Your task to perform on an android device: all mails in gmail Image 0: 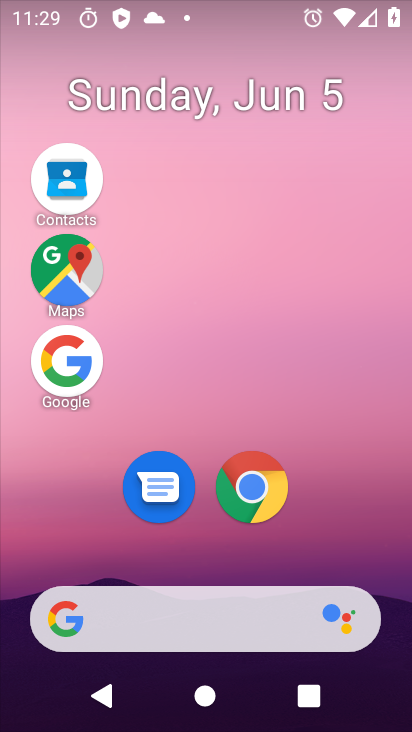
Step 0: drag from (198, 622) to (274, 152)
Your task to perform on an android device: all mails in gmail Image 1: 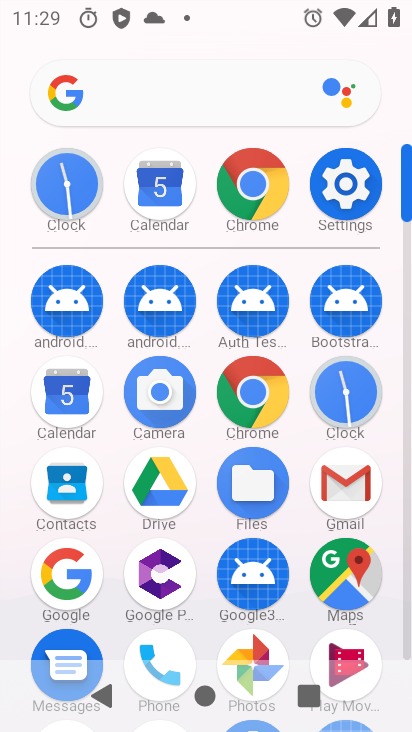
Step 1: click (351, 475)
Your task to perform on an android device: all mails in gmail Image 2: 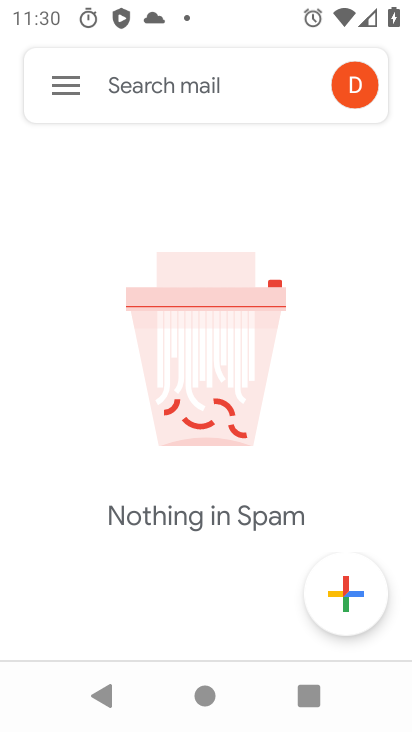
Step 2: click (68, 99)
Your task to perform on an android device: all mails in gmail Image 3: 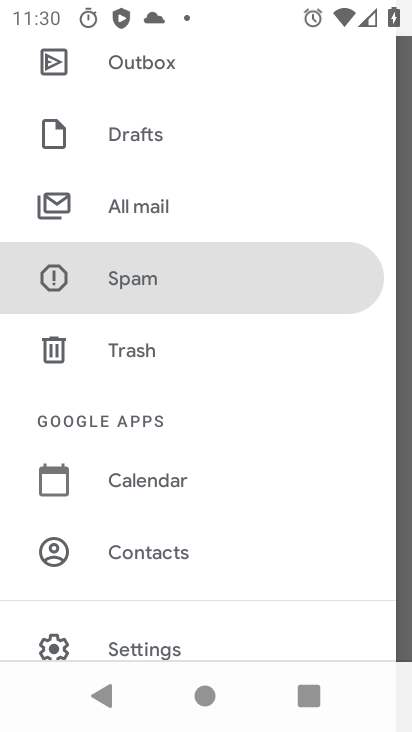
Step 3: click (166, 203)
Your task to perform on an android device: all mails in gmail Image 4: 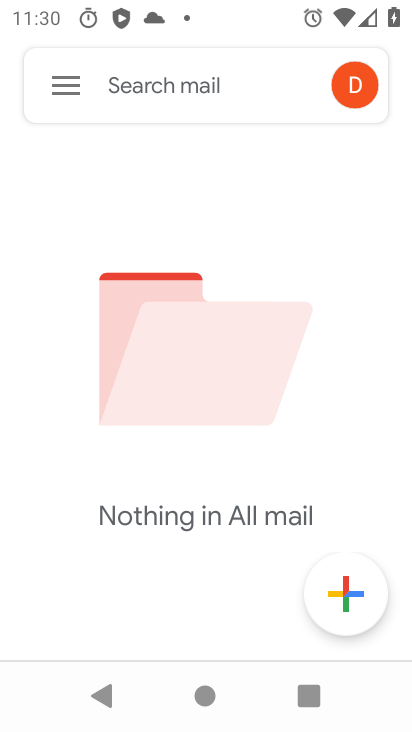
Step 4: task complete